Your task to perform on an android device: Find coffee shops on Maps Image 0: 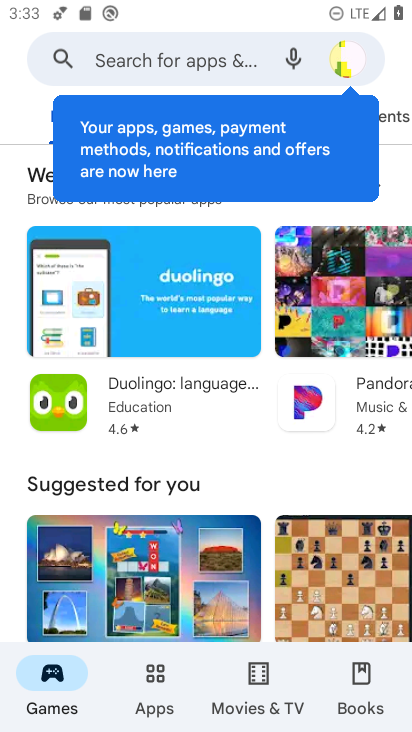
Step 0: press home button
Your task to perform on an android device: Find coffee shops on Maps Image 1: 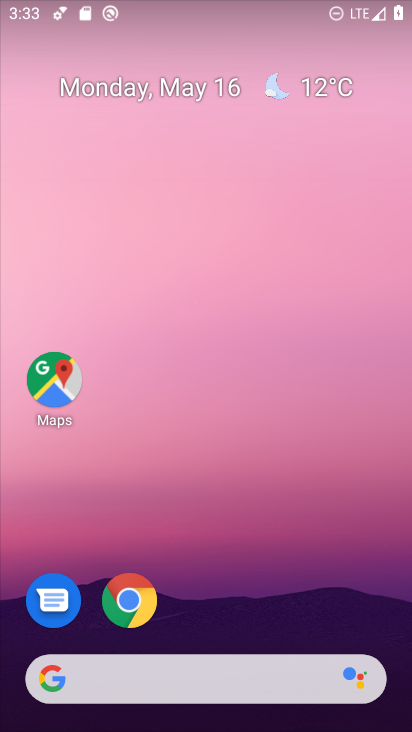
Step 1: click (49, 389)
Your task to perform on an android device: Find coffee shops on Maps Image 2: 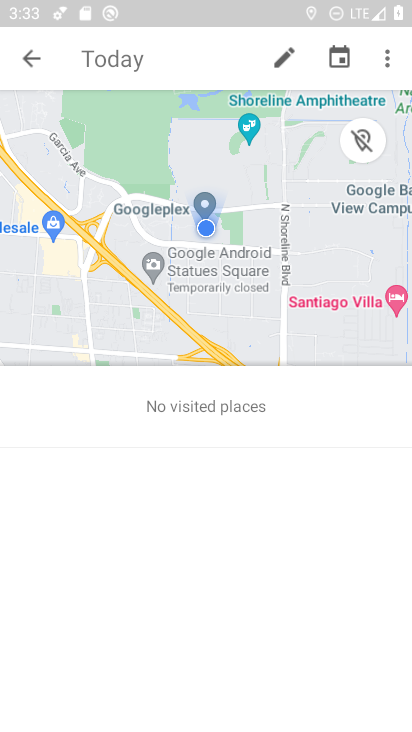
Step 2: click (29, 58)
Your task to perform on an android device: Find coffee shops on Maps Image 3: 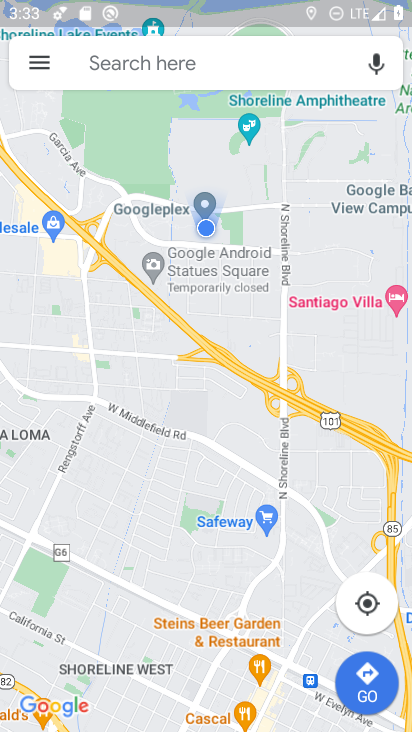
Step 3: click (169, 55)
Your task to perform on an android device: Find coffee shops on Maps Image 4: 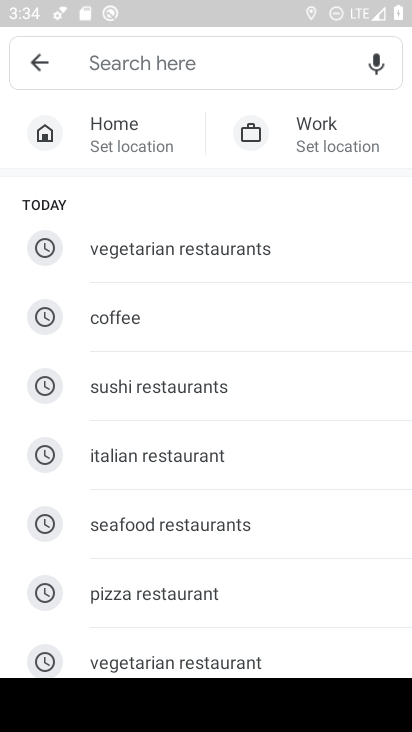
Step 4: type "coffee shops"
Your task to perform on an android device: Find coffee shops on Maps Image 5: 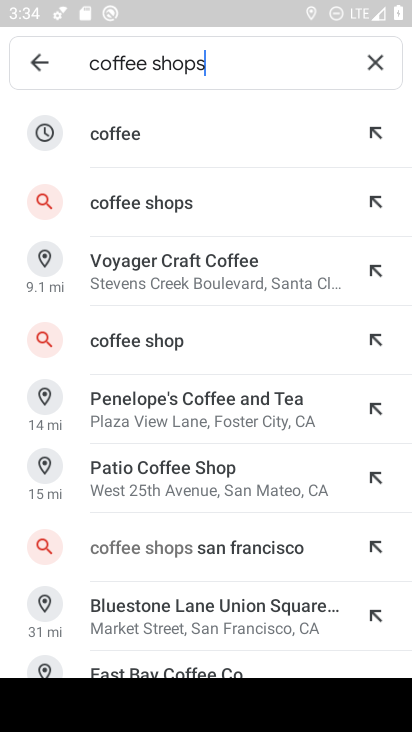
Step 5: click (139, 199)
Your task to perform on an android device: Find coffee shops on Maps Image 6: 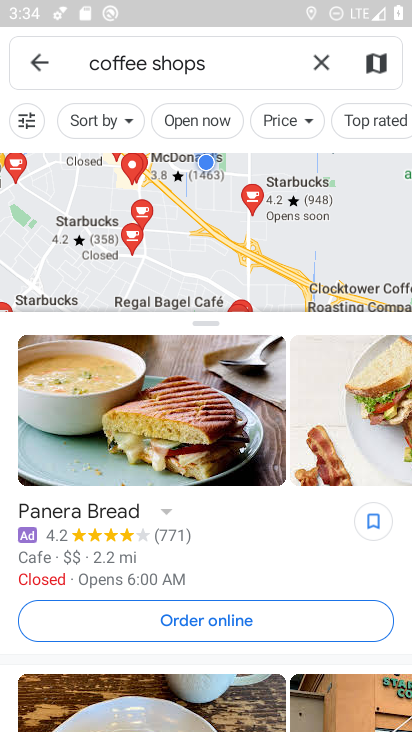
Step 6: task complete